Your task to perform on an android device: move an email to a new category in the gmail app Image 0: 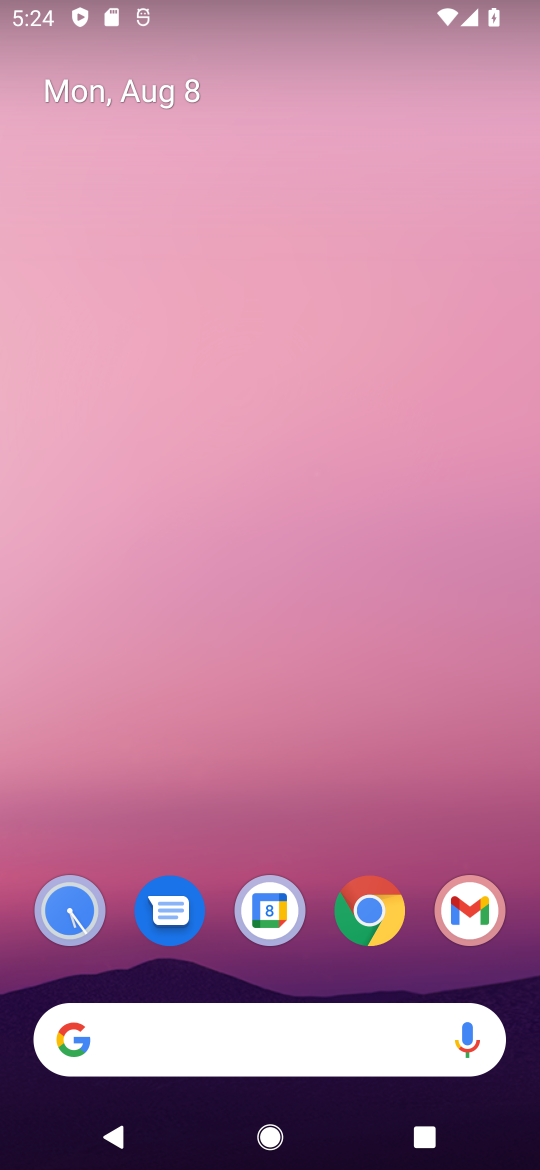
Step 0: drag from (205, 1044) to (392, 341)
Your task to perform on an android device: move an email to a new category in the gmail app Image 1: 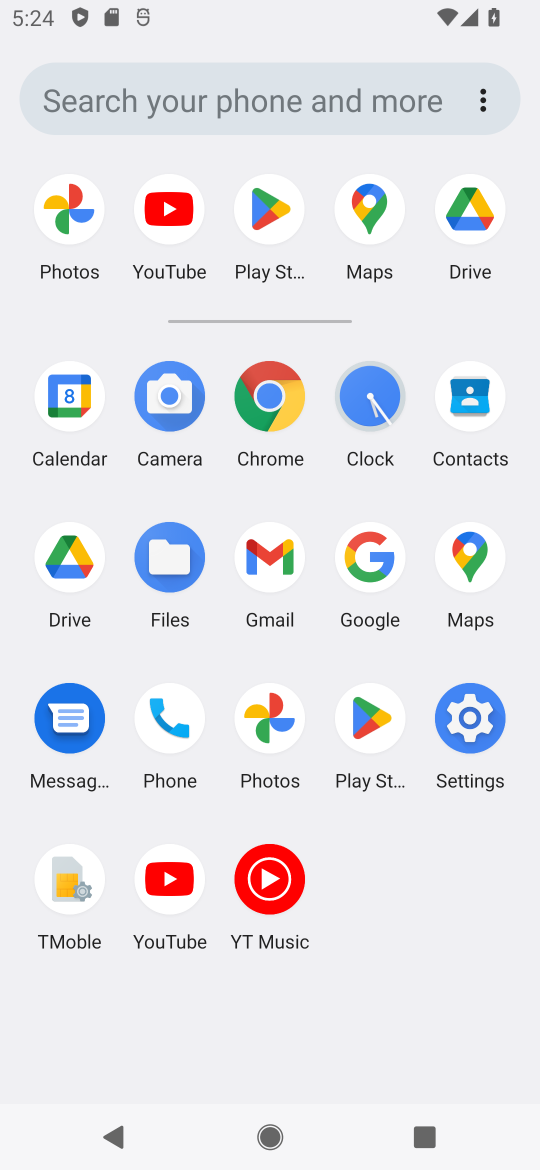
Step 1: click (270, 555)
Your task to perform on an android device: move an email to a new category in the gmail app Image 2: 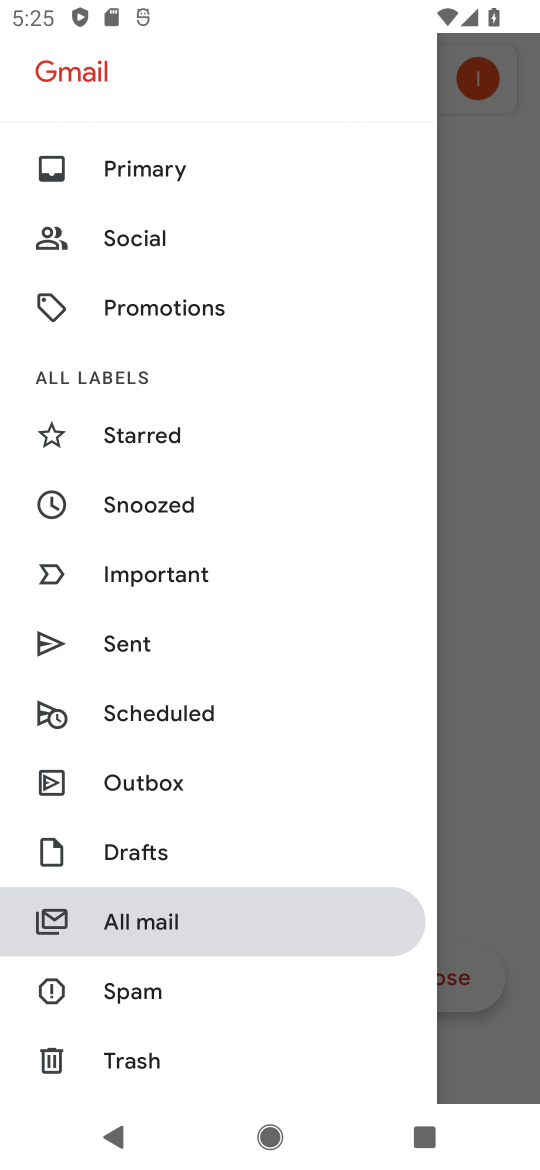
Step 2: click (142, 443)
Your task to perform on an android device: move an email to a new category in the gmail app Image 3: 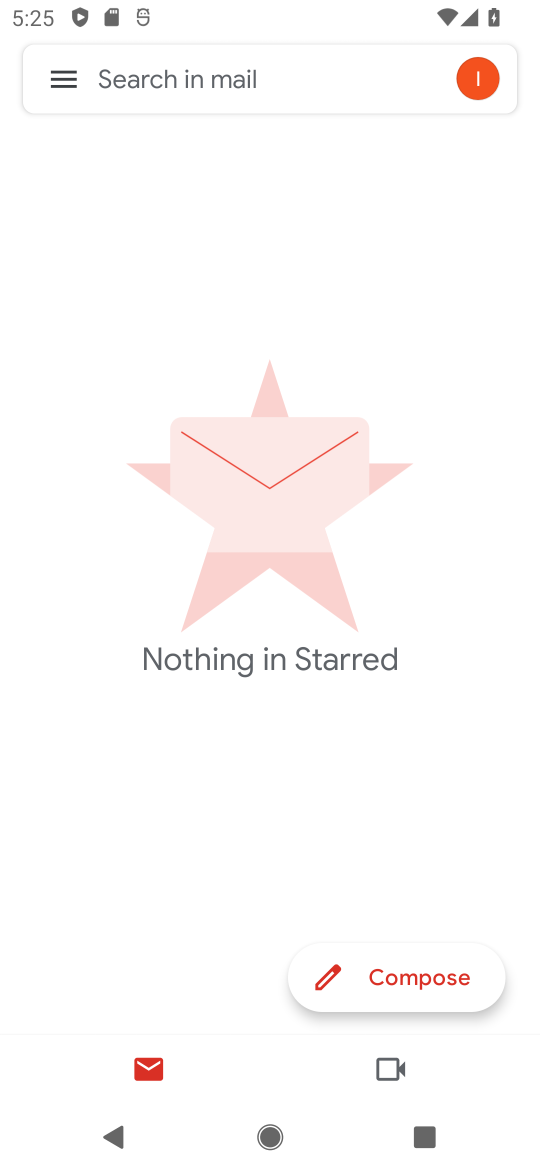
Step 3: click (51, 83)
Your task to perform on an android device: move an email to a new category in the gmail app Image 4: 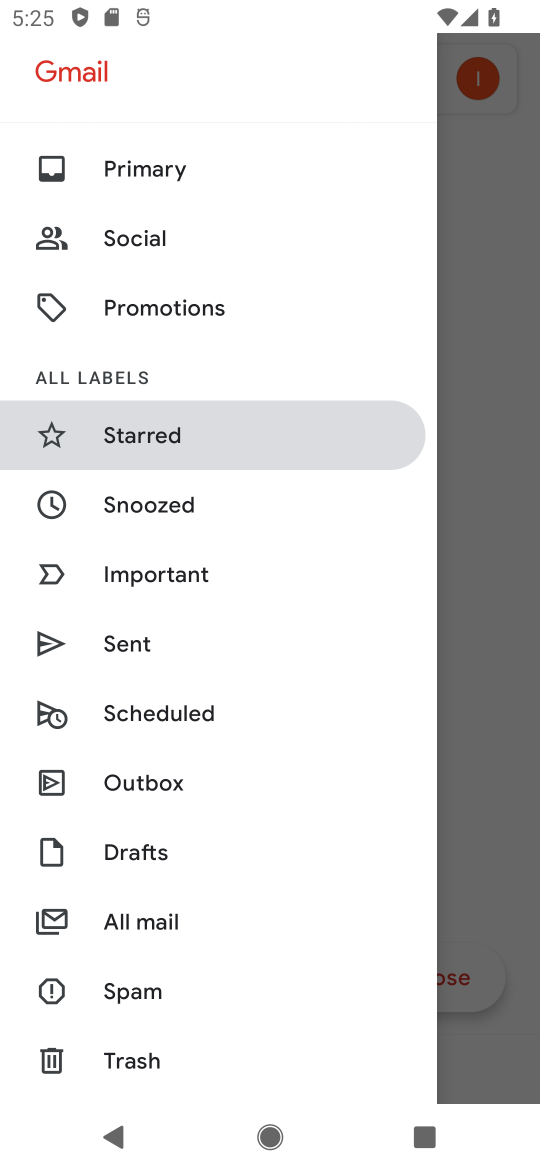
Step 4: click (120, 167)
Your task to perform on an android device: move an email to a new category in the gmail app Image 5: 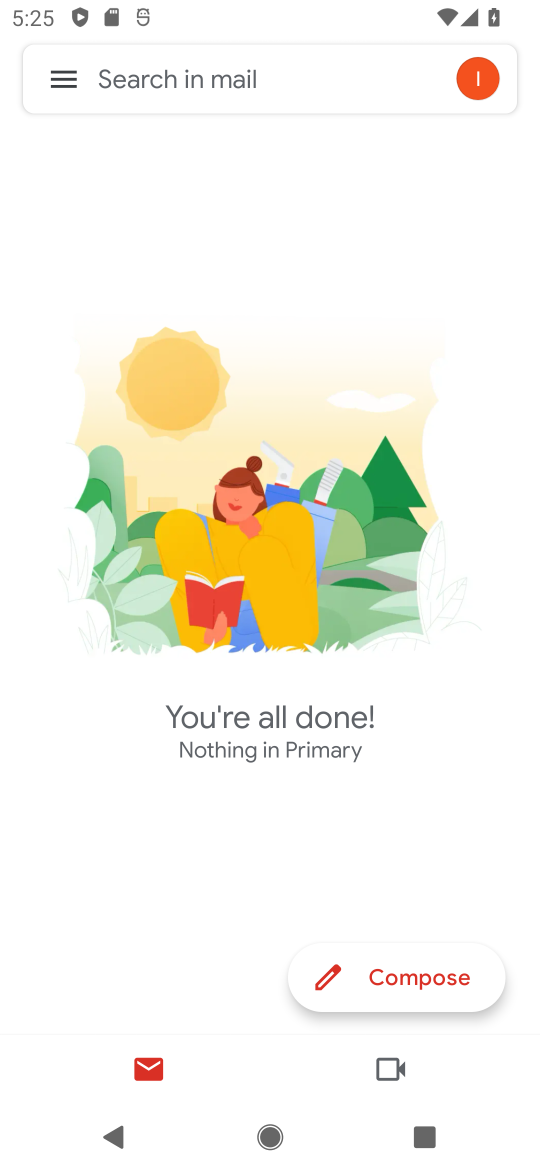
Step 5: click (65, 80)
Your task to perform on an android device: move an email to a new category in the gmail app Image 6: 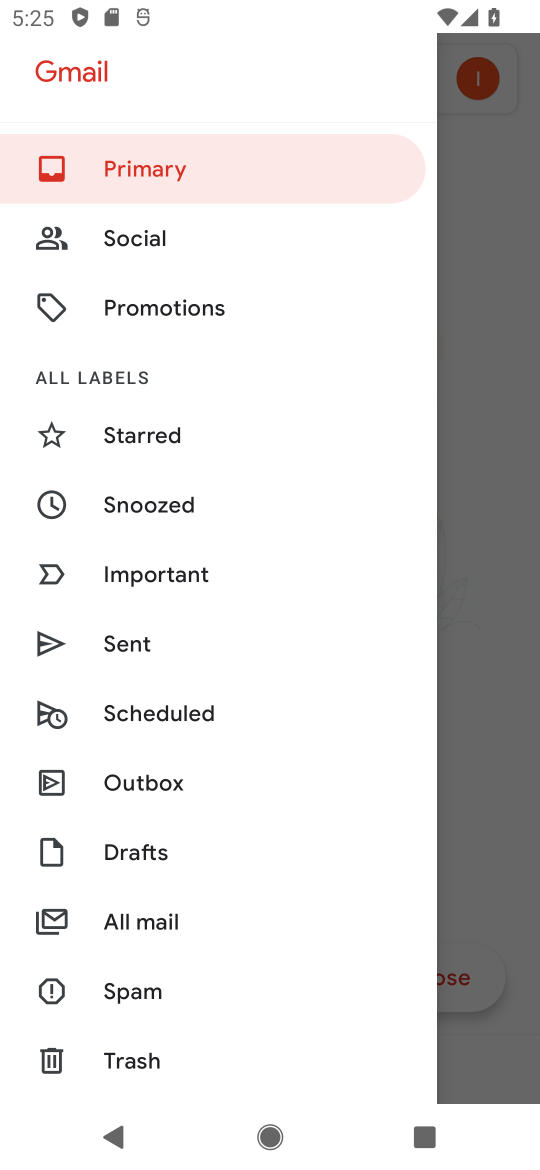
Step 6: click (127, 509)
Your task to perform on an android device: move an email to a new category in the gmail app Image 7: 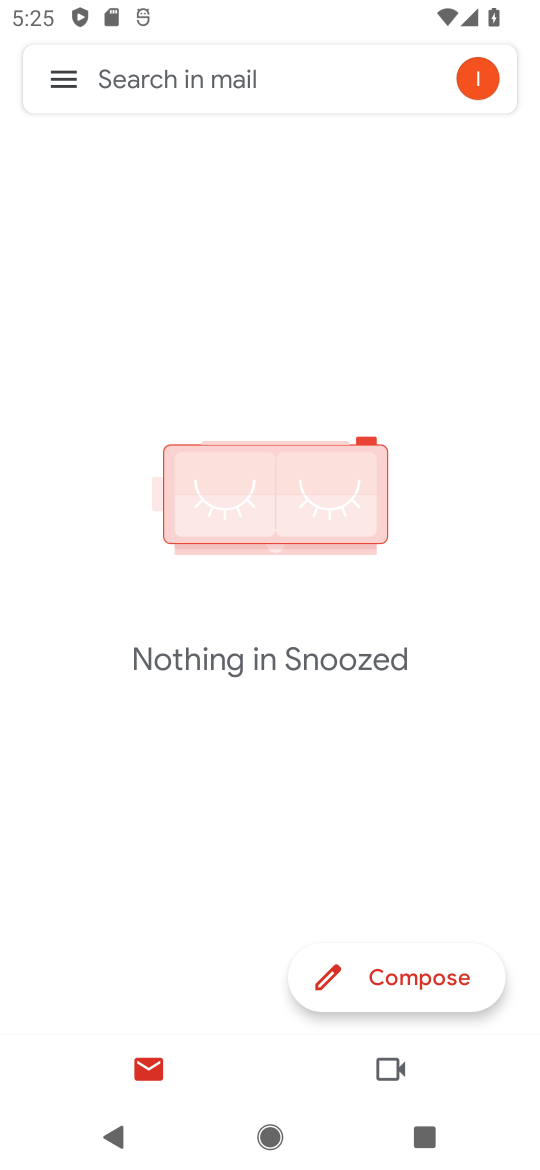
Step 7: click (65, 94)
Your task to perform on an android device: move an email to a new category in the gmail app Image 8: 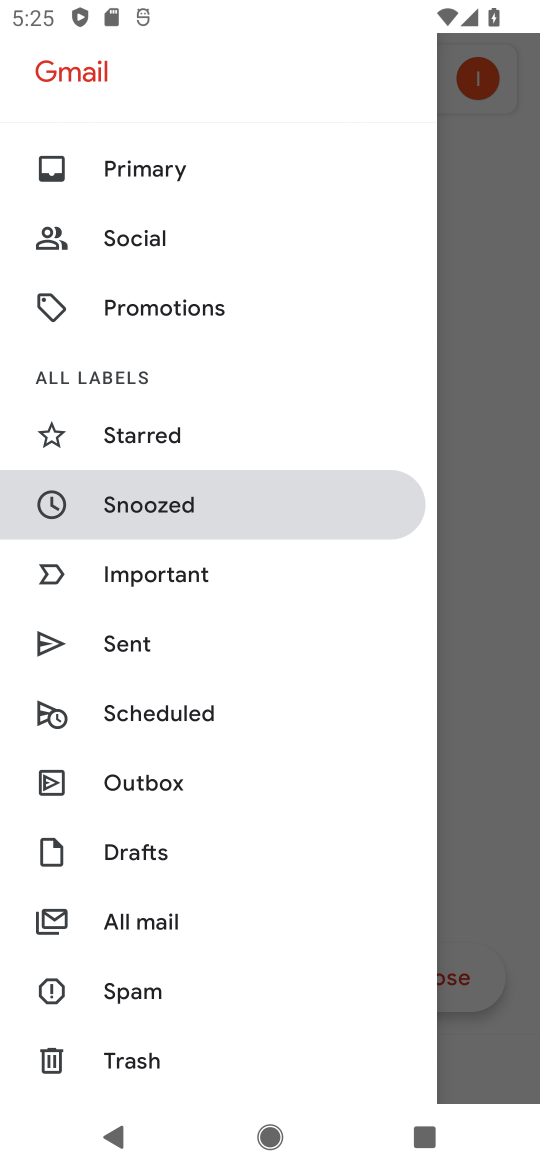
Step 8: click (150, 579)
Your task to perform on an android device: move an email to a new category in the gmail app Image 9: 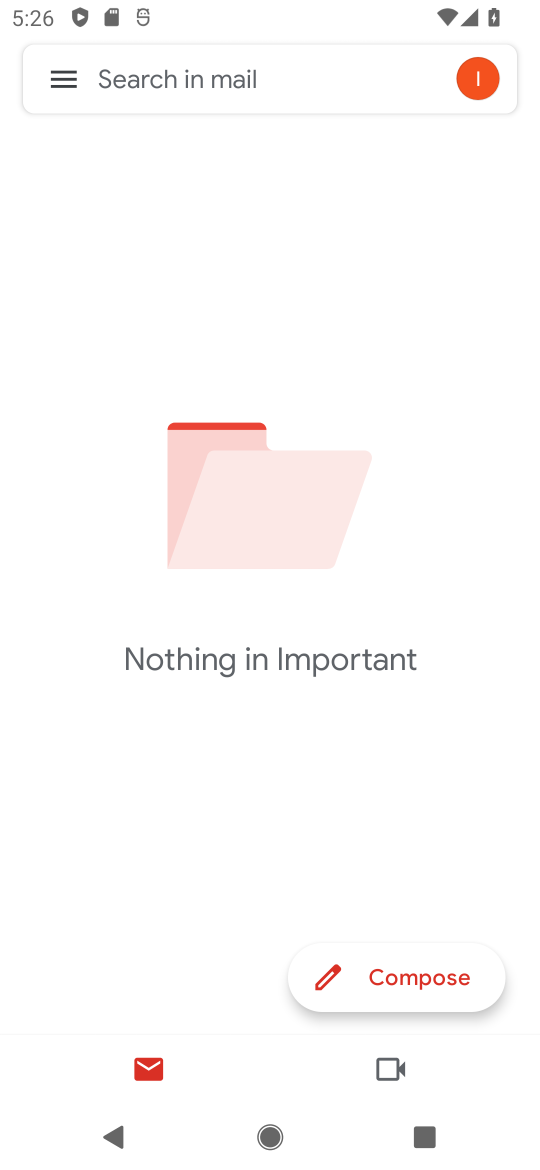
Step 9: task complete